Your task to perform on an android device: Open the calendar app, open the side menu, and click the "Day" option Image 0: 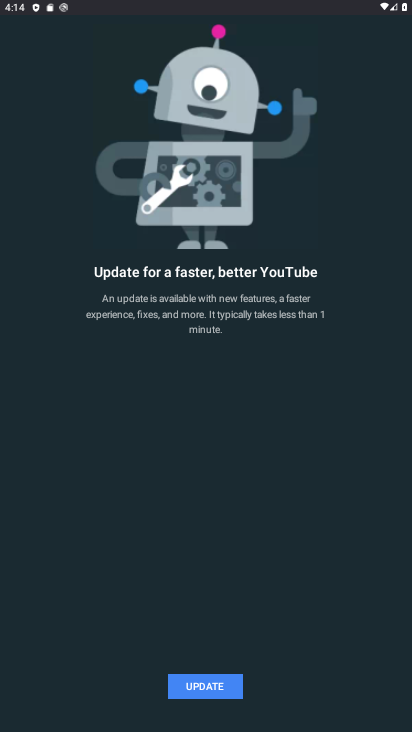
Step 0: press home button
Your task to perform on an android device: Open the calendar app, open the side menu, and click the "Day" option Image 1: 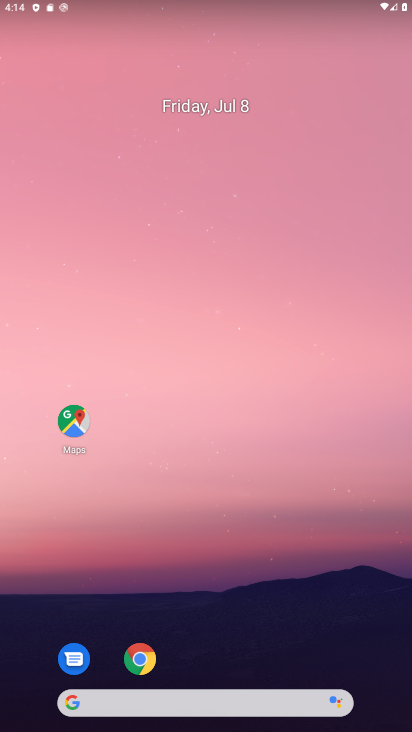
Step 1: drag from (249, 655) to (162, 2)
Your task to perform on an android device: Open the calendar app, open the side menu, and click the "Day" option Image 2: 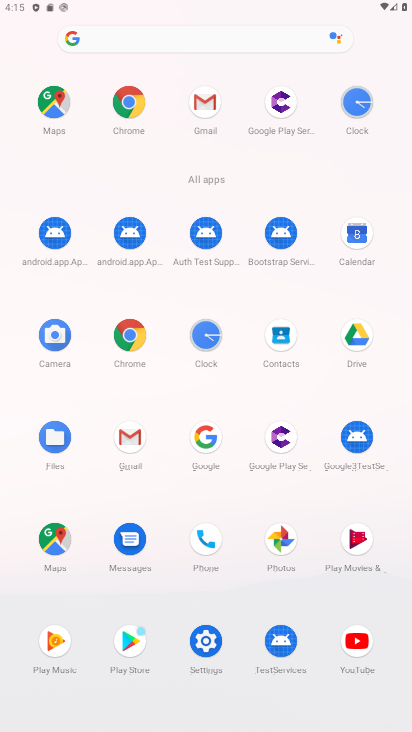
Step 2: click (350, 236)
Your task to perform on an android device: Open the calendar app, open the side menu, and click the "Day" option Image 3: 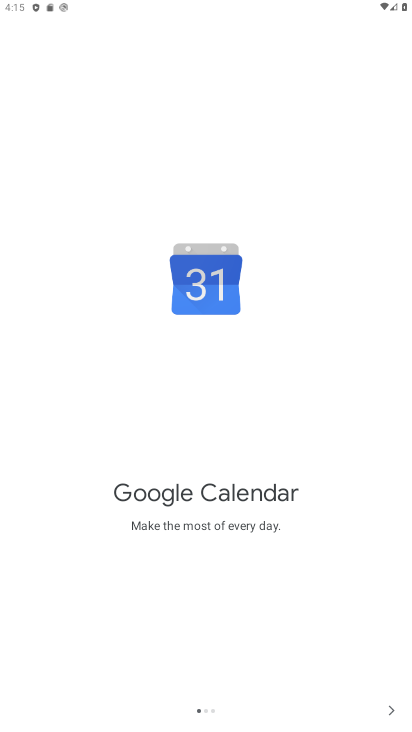
Step 3: click (387, 713)
Your task to perform on an android device: Open the calendar app, open the side menu, and click the "Day" option Image 4: 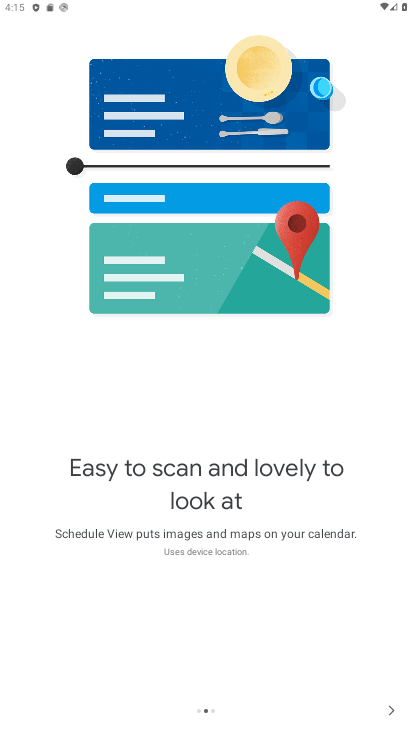
Step 4: click (387, 713)
Your task to perform on an android device: Open the calendar app, open the side menu, and click the "Day" option Image 5: 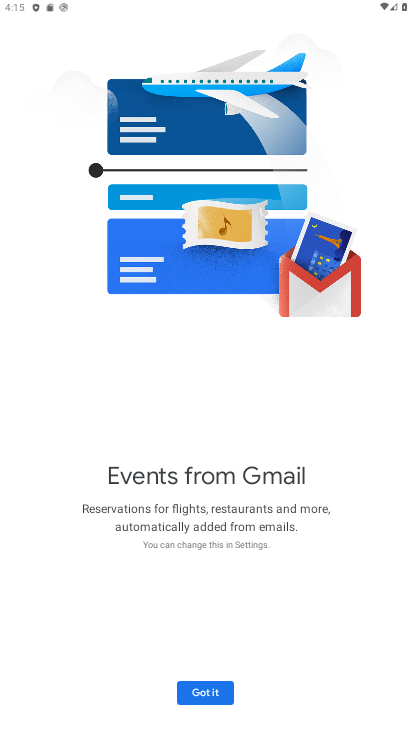
Step 5: click (206, 680)
Your task to perform on an android device: Open the calendar app, open the side menu, and click the "Day" option Image 6: 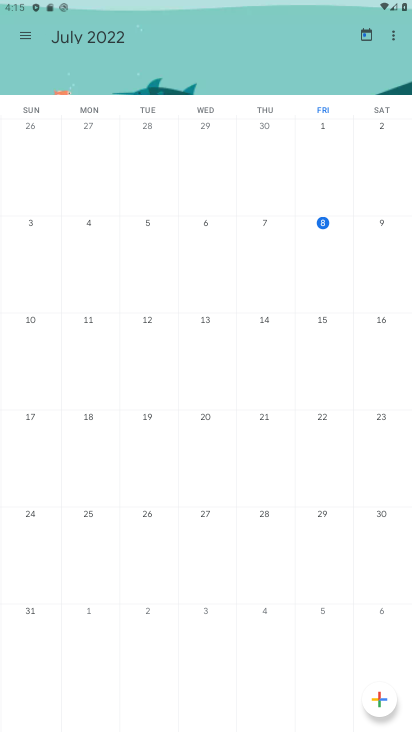
Step 6: click (34, 34)
Your task to perform on an android device: Open the calendar app, open the side menu, and click the "Day" option Image 7: 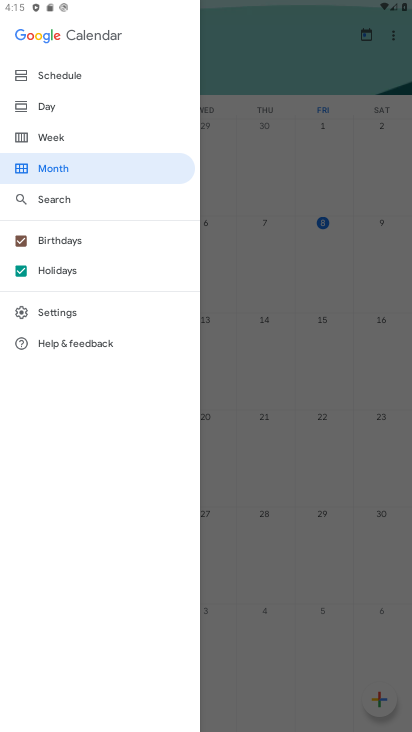
Step 7: click (18, 112)
Your task to perform on an android device: Open the calendar app, open the side menu, and click the "Day" option Image 8: 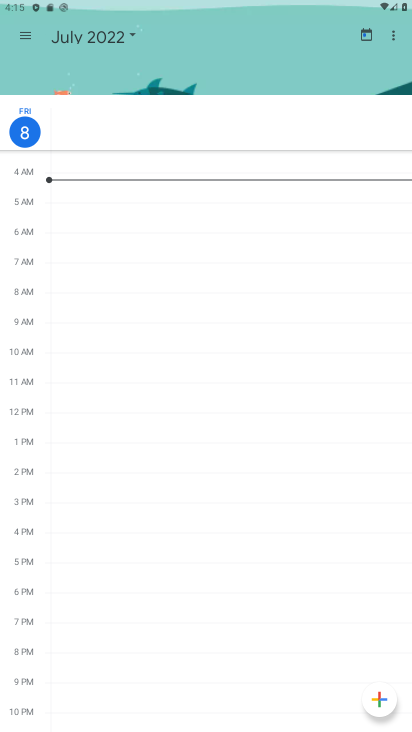
Step 8: task complete